Your task to perform on an android device: clear all cookies in the chrome app Image 0: 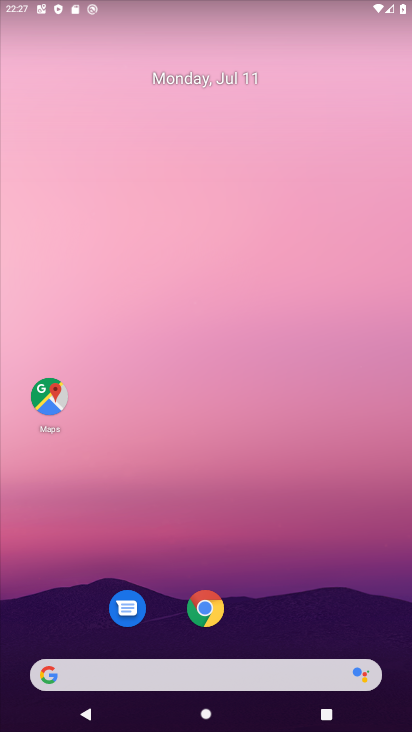
Step 0: click (201, 624)
Your task to perform on an android device: clear all cookies in the chrome app Image 1: 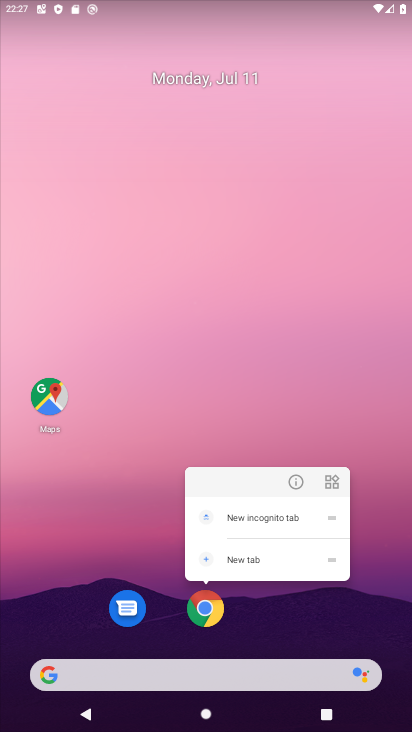
Step 1: click (208, 622)
Your task to perform on an android device: clear all cookies in the chrome app Image 2: 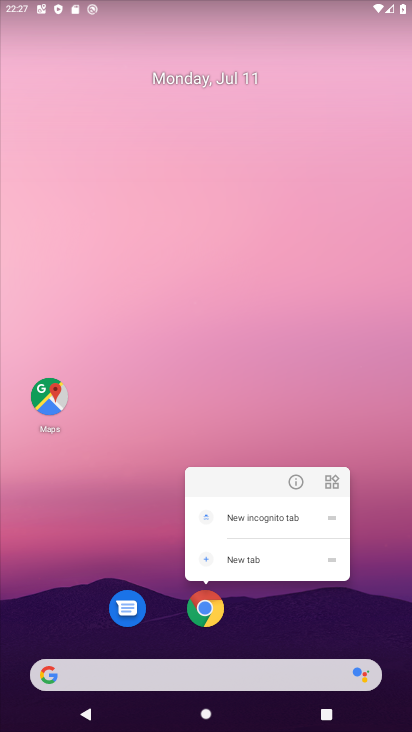
Step 2: click (205, 598)
Your task to perform on an android device: clear all cookies in the chrome app Image 3: 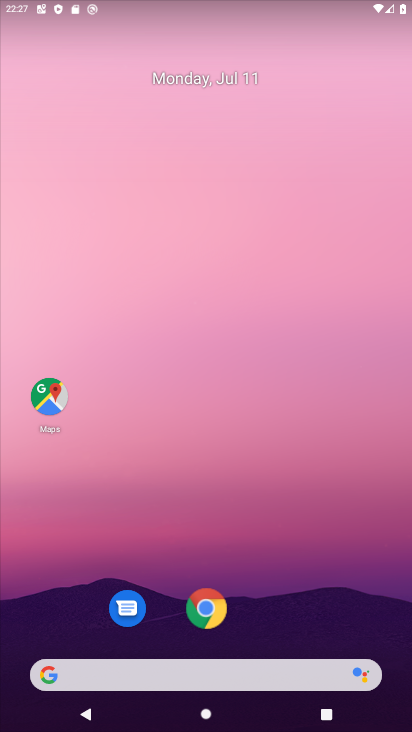
Step 3: click (205, 598)
Your task to perform on an android device: clear all cookies in the chrome app Image 4: 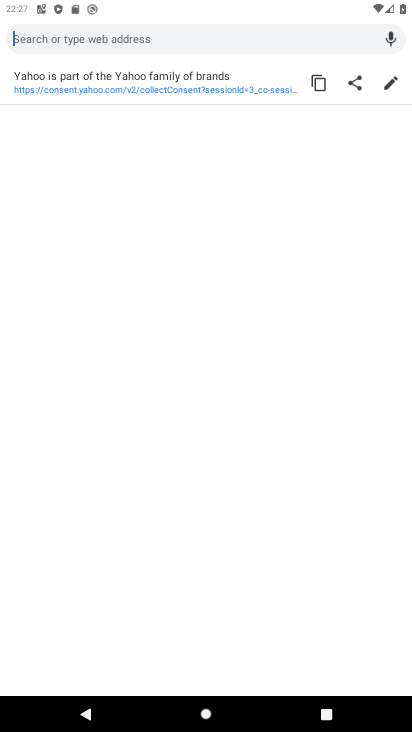
Step 4: click (98, 25)
Your task to perform on an android device: clear all cookies in the chrome app Image 5: 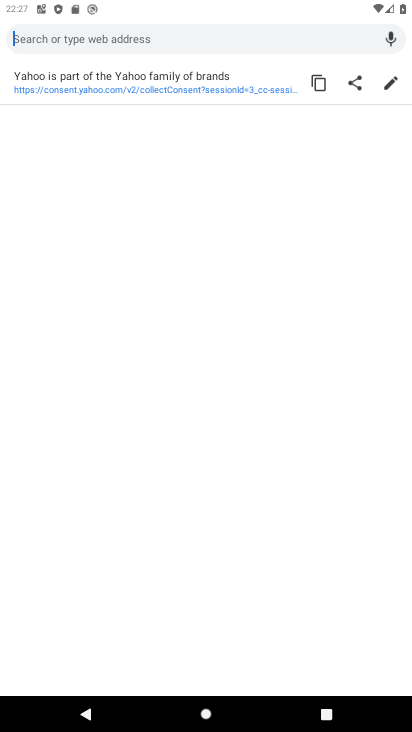
Step 5: click (100, 52)
Your task to perform on an android device: clear all cookies in the chrome app Image 6: 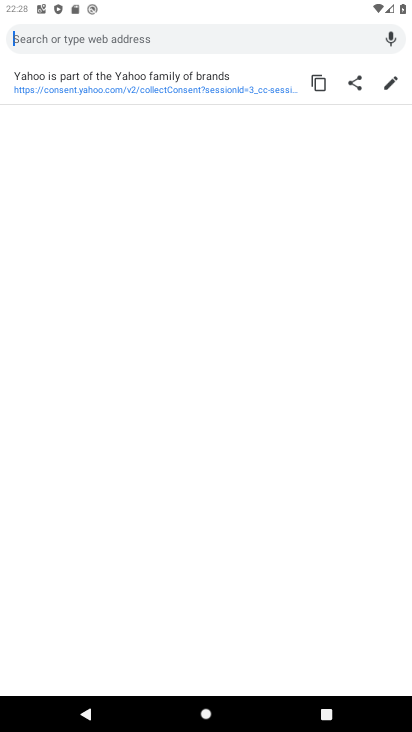
Step 6: task complete